Your task to perform on an android device: Open Android settings Image 0: 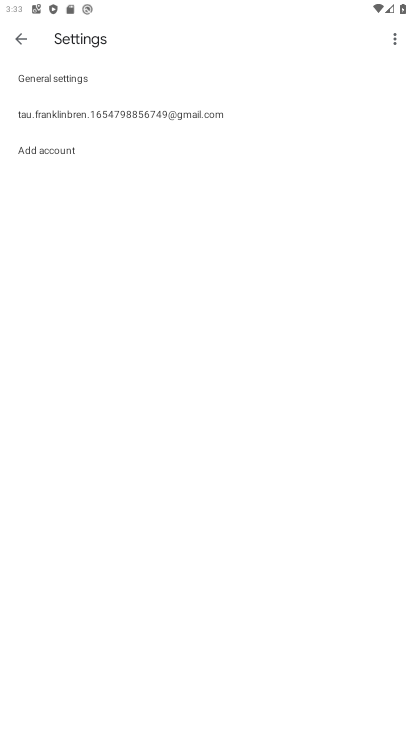
Step 0: press home button
Your task to perform on an android device: Open Android settings Image 1: 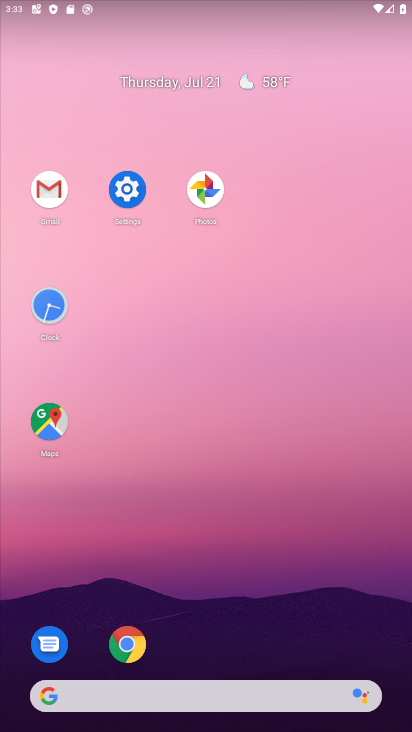
Step 1: click (129, 183)
Your task to perform on an android device: Open Android settings Image 2: 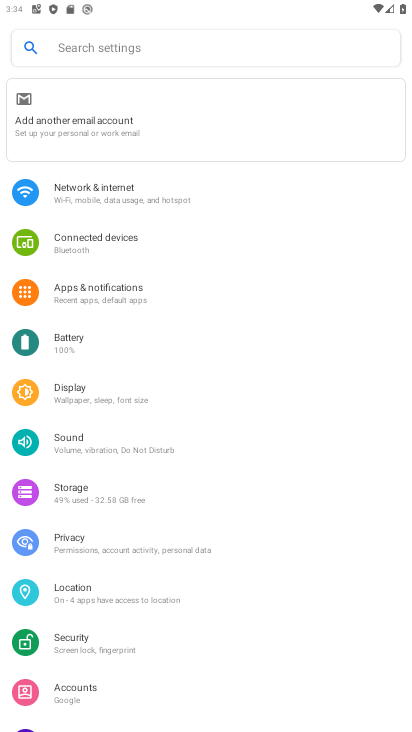
Step 2: task complete